Your task to perform on an android device: open app "Airtel Thanks" Image 0: 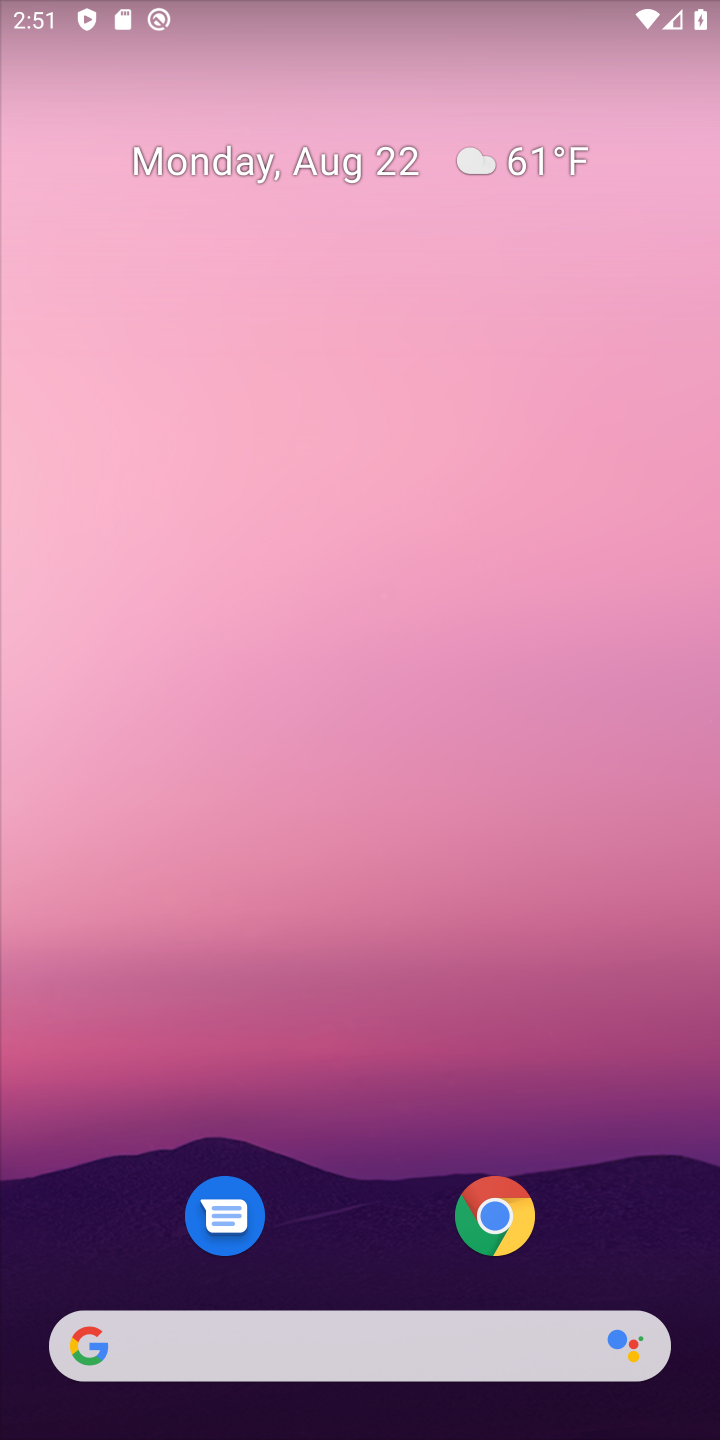
Step 0: drag from (217, 196) to (108, 5)
Your task to perform on an android device: open app "Airtel Thanks" Image 1: 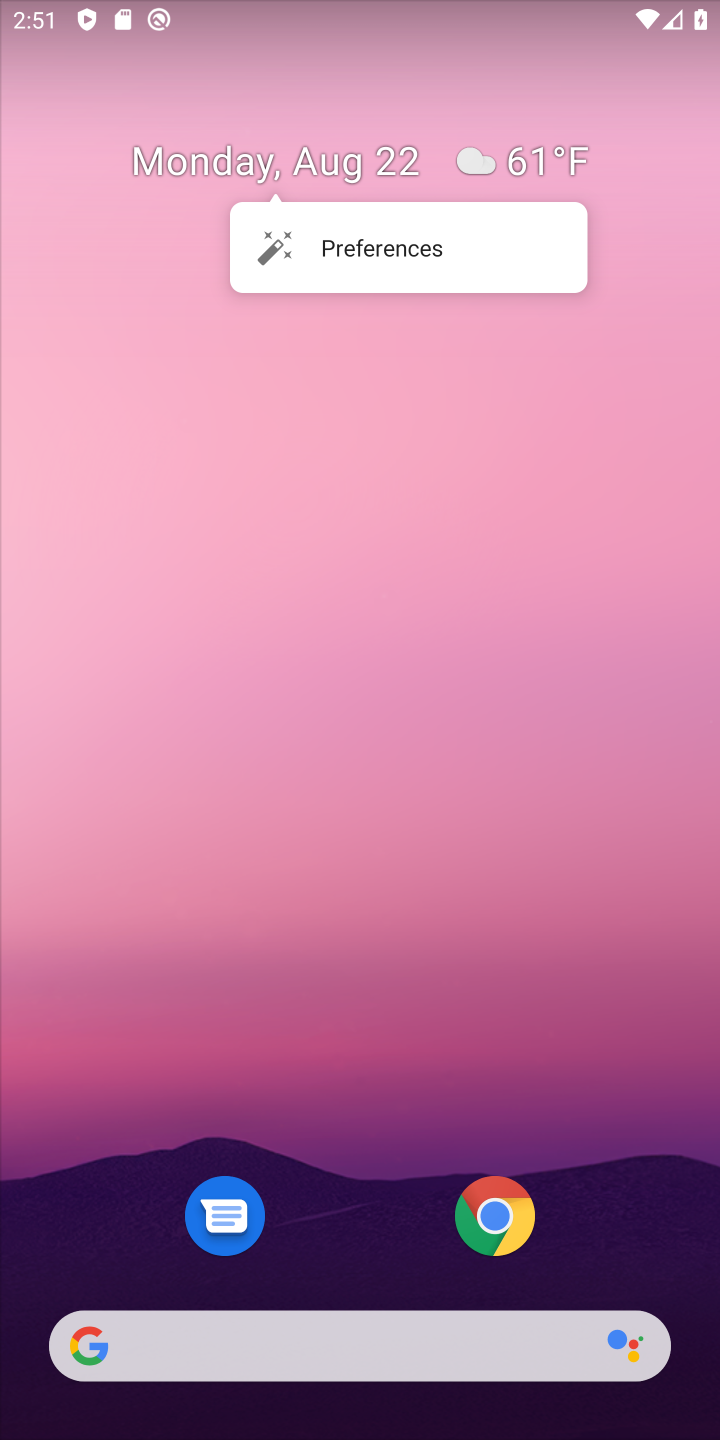
Step 1: drag from (344, 712) to (338, 10)
Your task to perform on an android device: open app "Airtel Thanks" Image 2: 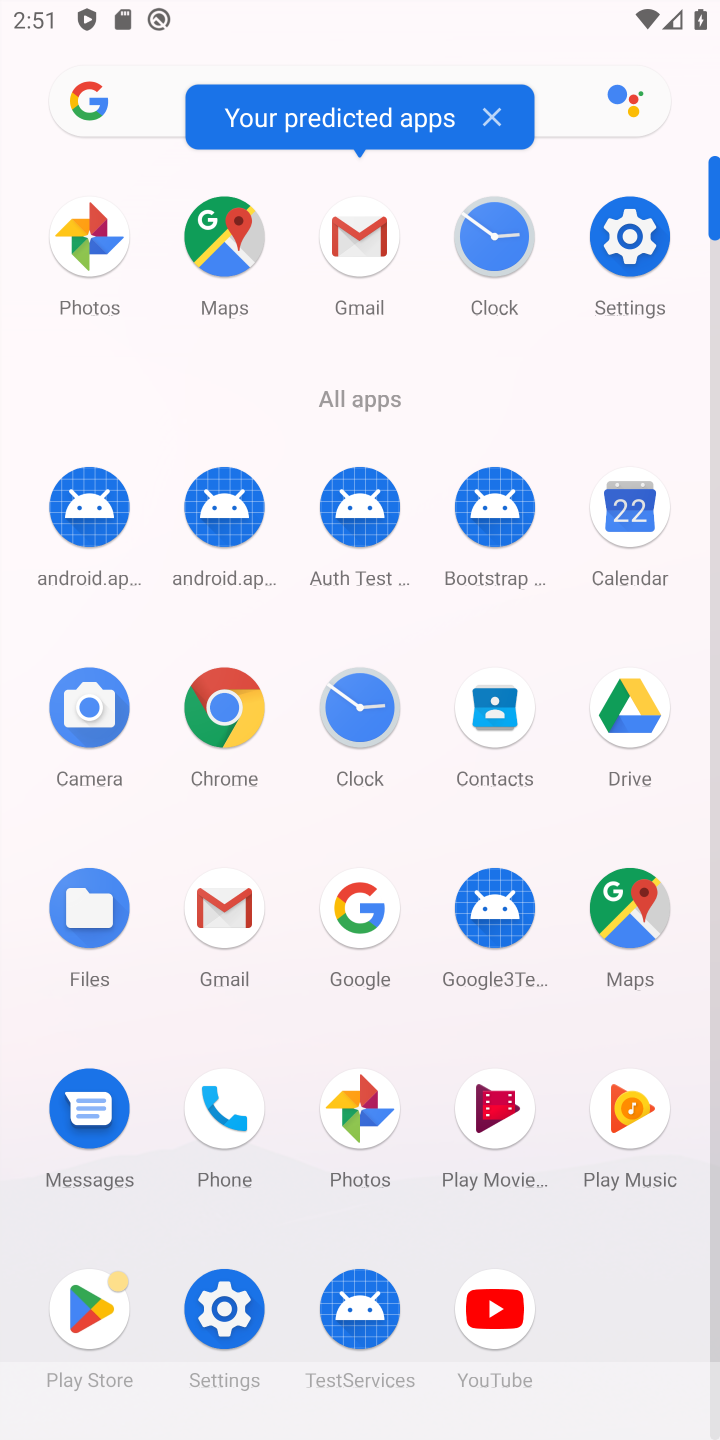
Step 2: click (88, 1318)
Your task to perform on an android device: open app "Airtel Thanks" Image 3: 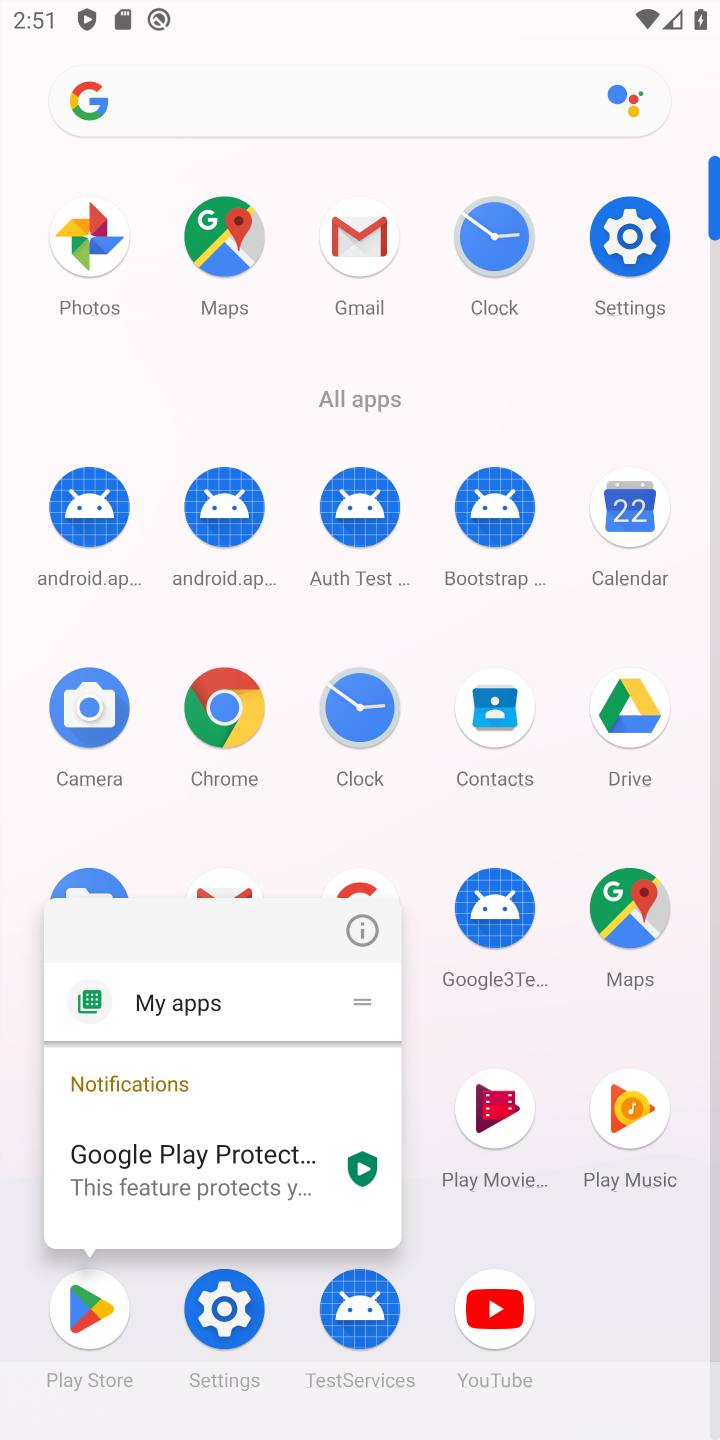
Step 3: click (88, 1321)
Your task to perform on an android device: open app "Airtel Thanks" Image 4: 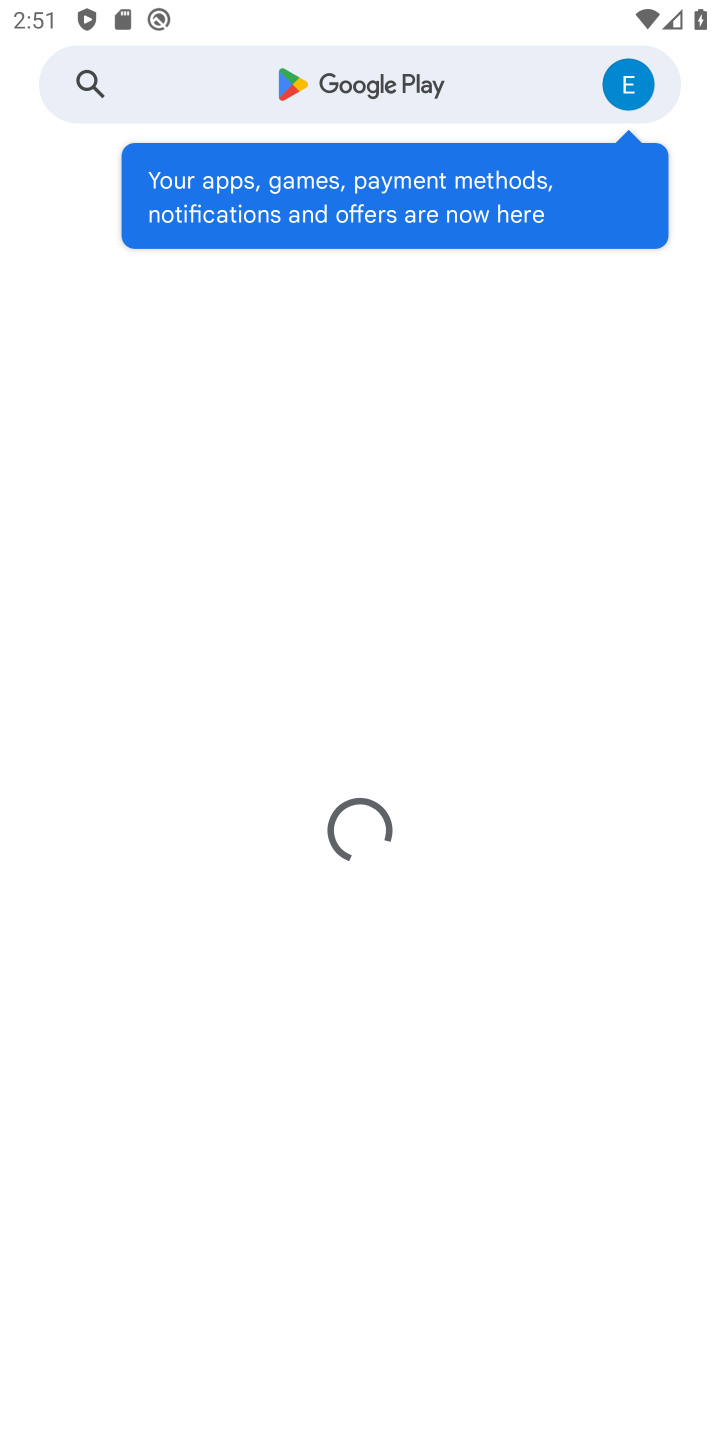
Step 4: click (313, 97)
Your task to perform on an android device: open app "Airtel Thanks" Image 5: 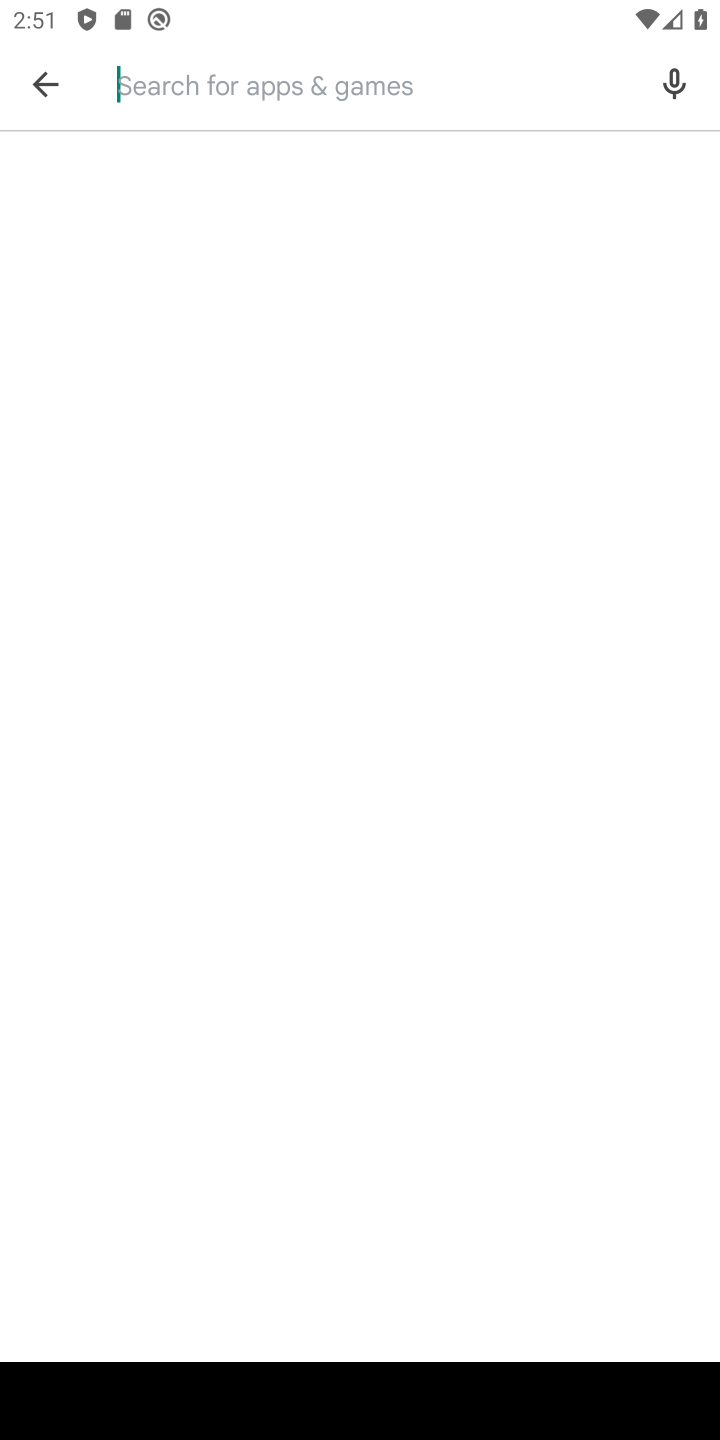
Step 5: type "Airtel Thanks"
Your task to perform on an android device: open app "Airtel Thanks" Image 6: 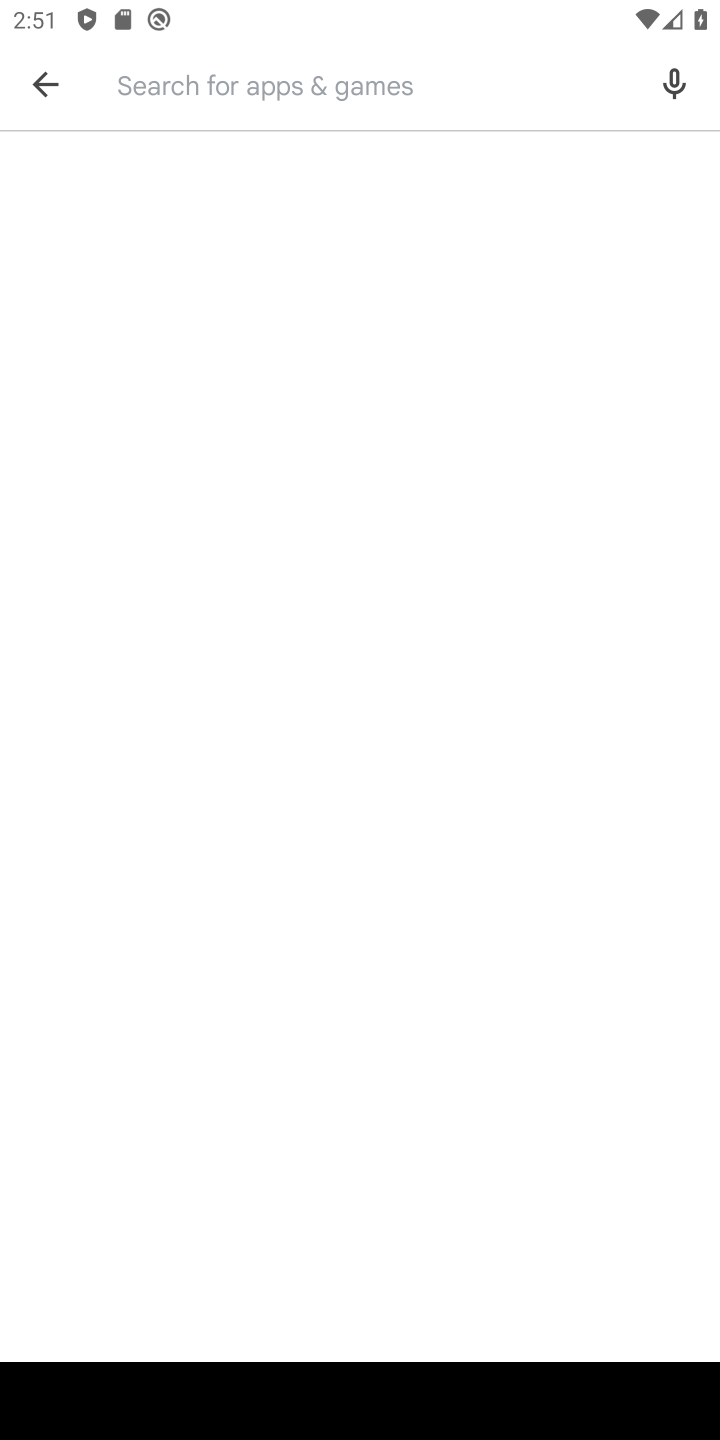
Step 6: click (509, 108)
Your task to perform on an android device: open app "Airtel Thanks" Image 7: 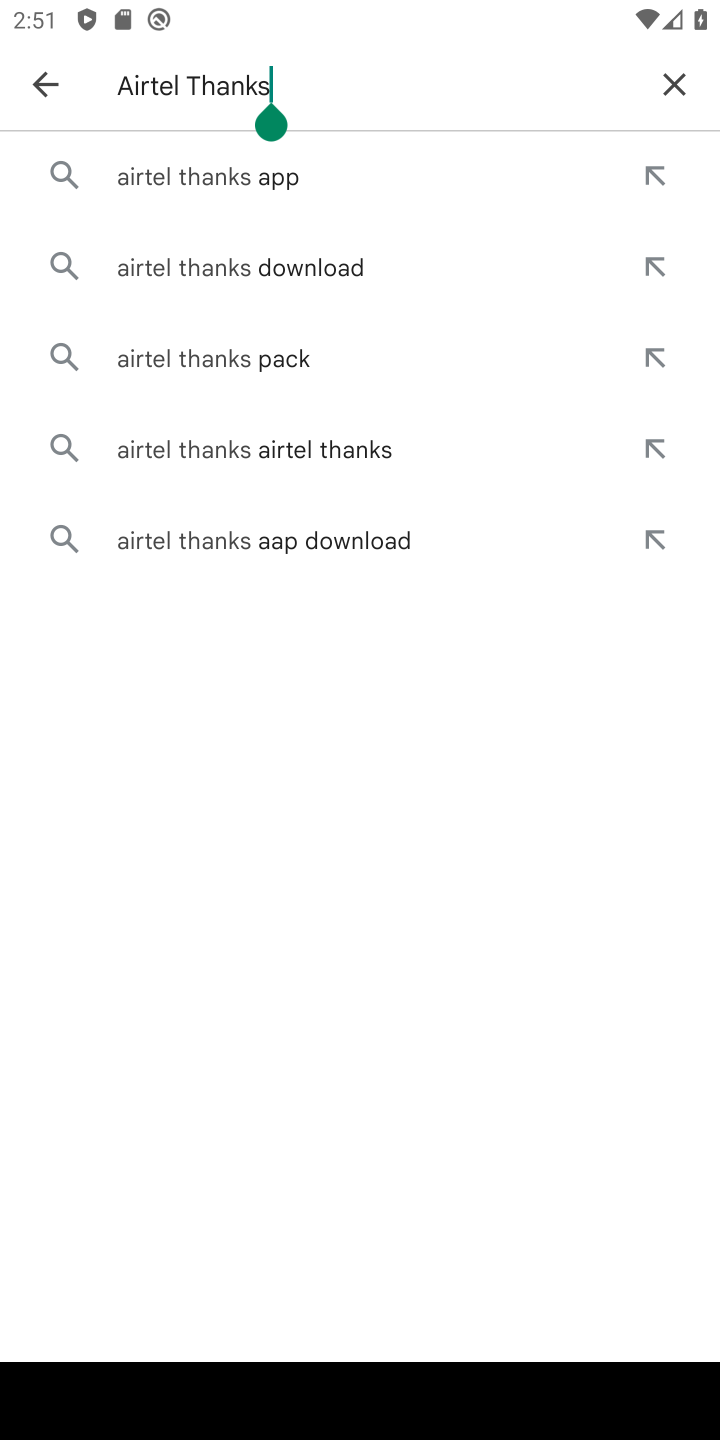
Step 7: click (229, 178)
Your task to perform on an android device: open app "Airtel Thanks" Image 8: 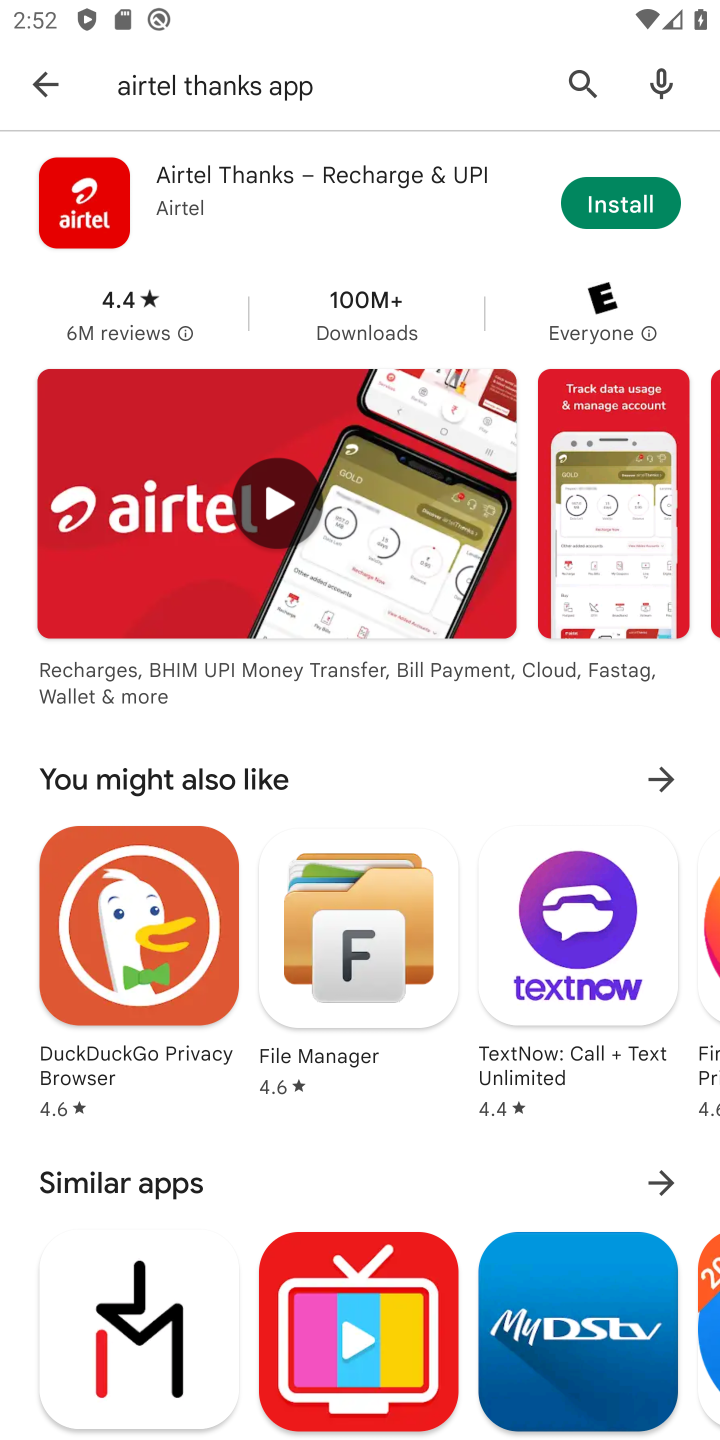
Step 8: task complete